Your task to perform on an android device: delete browsing data in the chrome app Image 0: 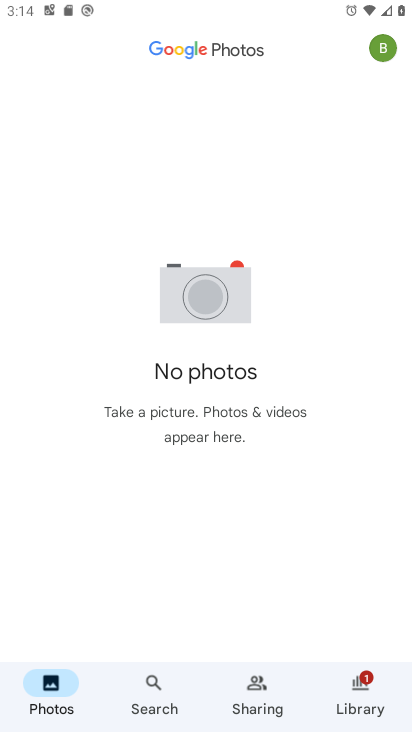
Step 0: press home button
Your task to perform on an android device: delete browsing data in the chrome app Image 1: 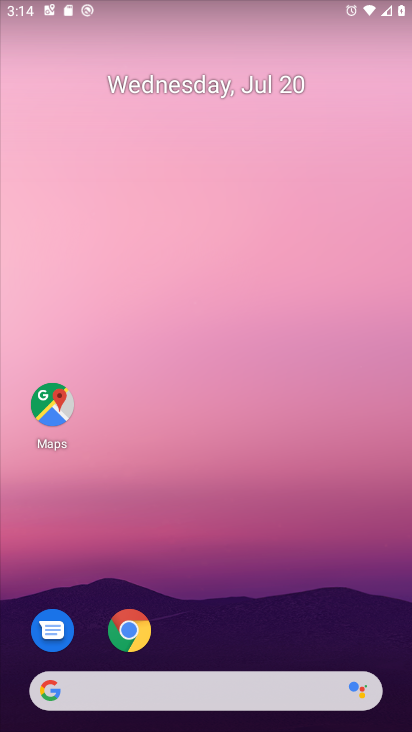
Step 1: drag from (183, 707) to (234, 378)
Your task to perform on an android device: delete browsing data in the chrome app Image 2: 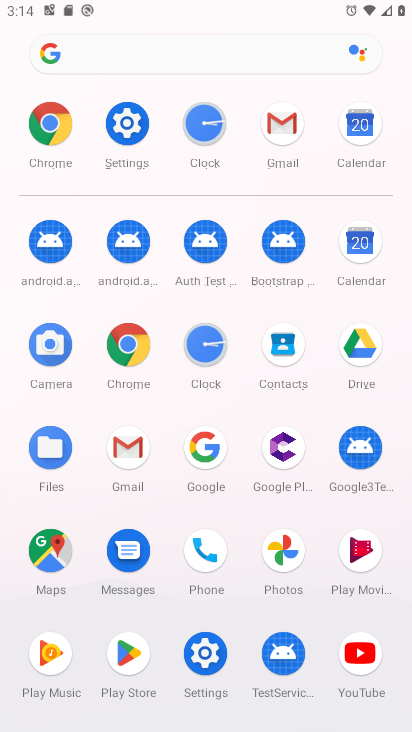
Step 2: click (48, 147)
Your task to perform on an android device: delete browsing data in the chrome app Image 3: 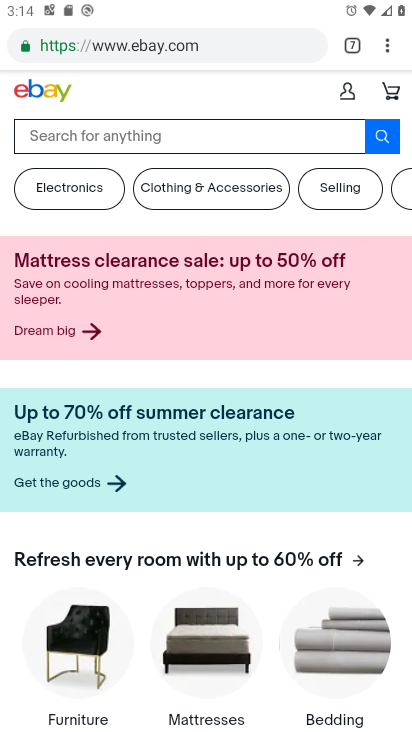
Step 3: click (384, 47)
Your task to perform on an android device: delete browsing data in the chrome app Image 4: 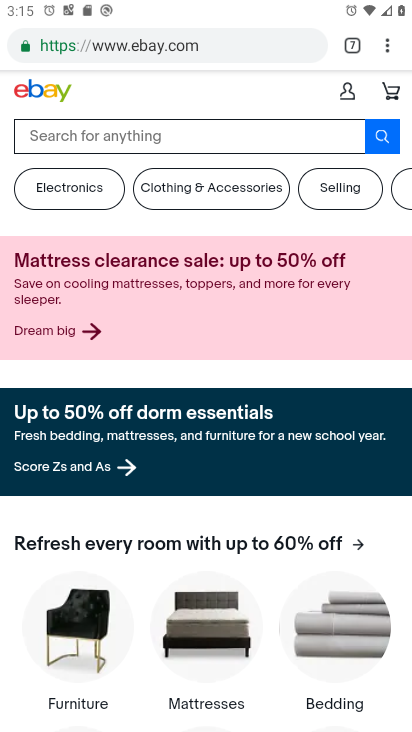
Step 4: click (390, 47)
Your task to perform on an android device: delete browsing data in the chrome app Image 5: 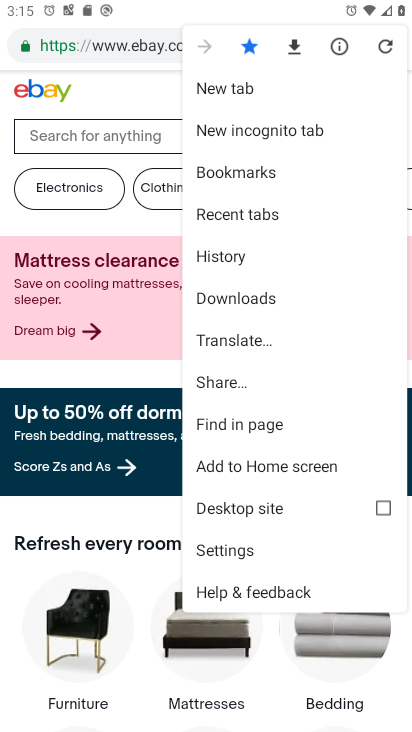
Step 5: click (240, 253)
Your task to perform on an android device: delete browsing data in the chrome app Image 6: 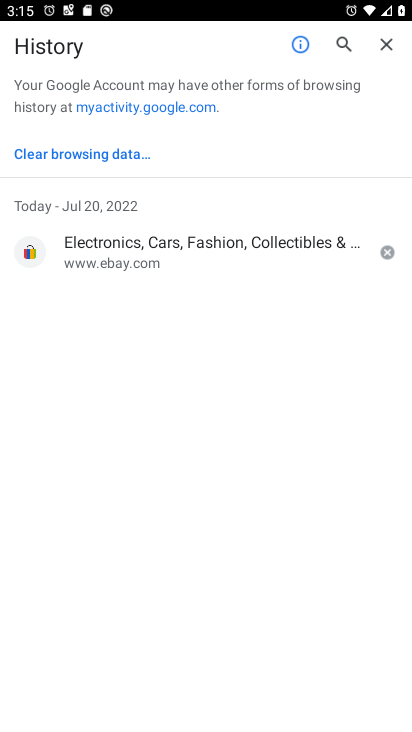
Step 6: click (119, 154)
Your task to perform on an android device: delete browsing data in the chrome app Image 7: 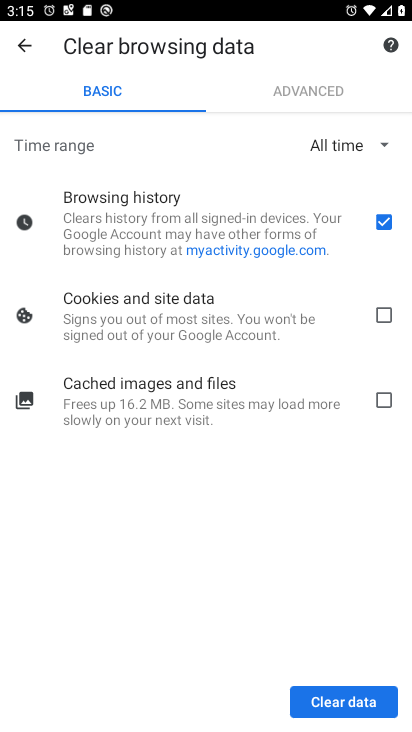
Step 7: click (345, 713)
Your task to perform on an android device: delete browsing data in the chrome app Image 8: 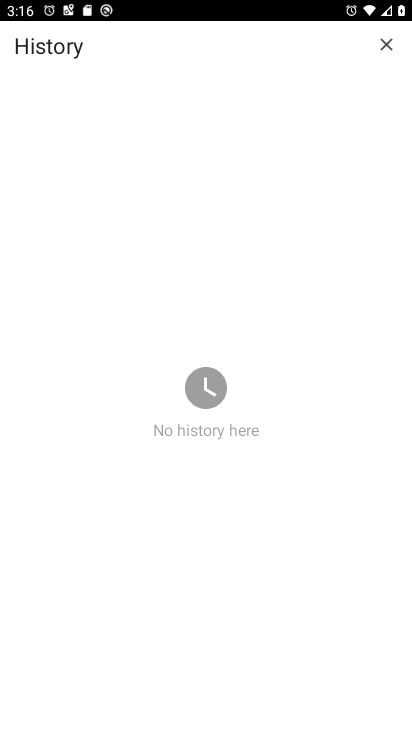
Step 8: task complete